Your task to perform on an android device: change the clock display to digital Image 0: 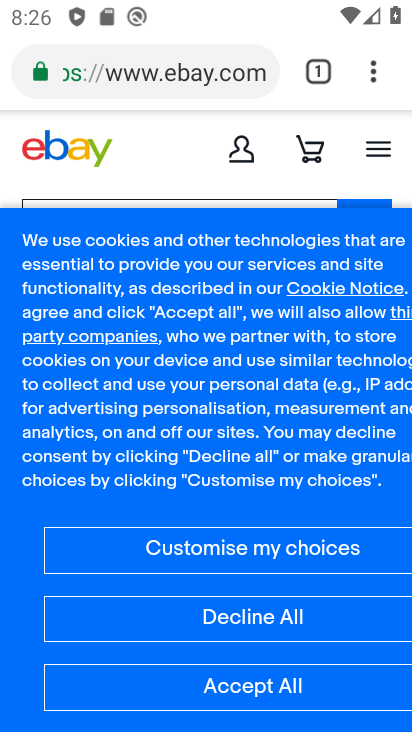
Step 0: press home button
Your task to perform on an android device: change the clock display to digital Image 1: 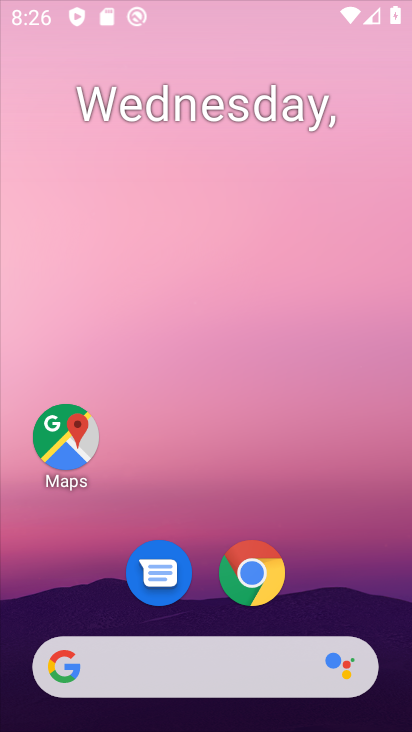
Step 1: drag from (203, 648) to (176, 121)
Your task to perform on an android device: change the clock display to digital Image 2: 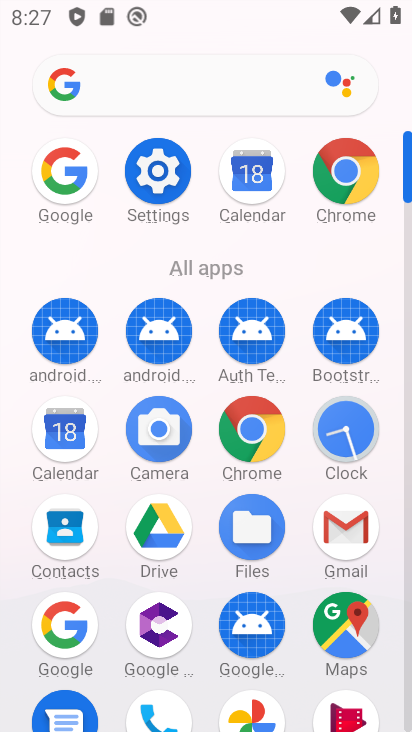
Step 2: click (358, 440)
Your task to perform on an android device: change the clock display to digital Image 3: 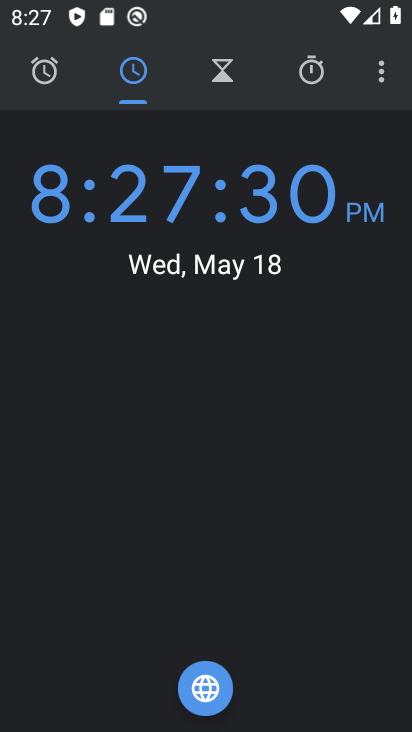
Step 3: click (370, 97)
Your task to perform on an android device: change the clock display to digital Image 4: 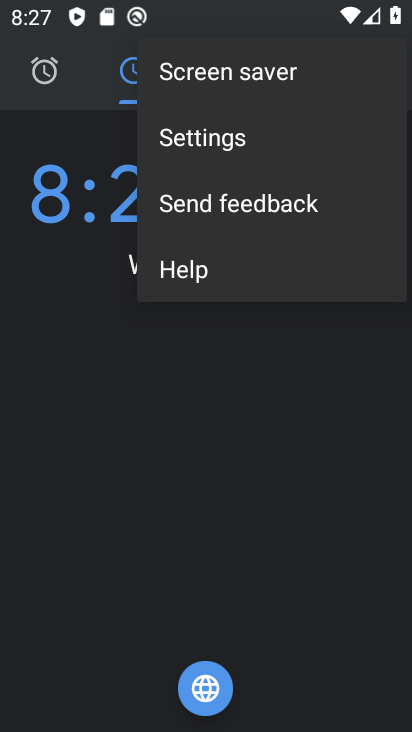
Step 4: click (170, 149)
Your task to perform on an android device: change the clock display to digital Image 5: 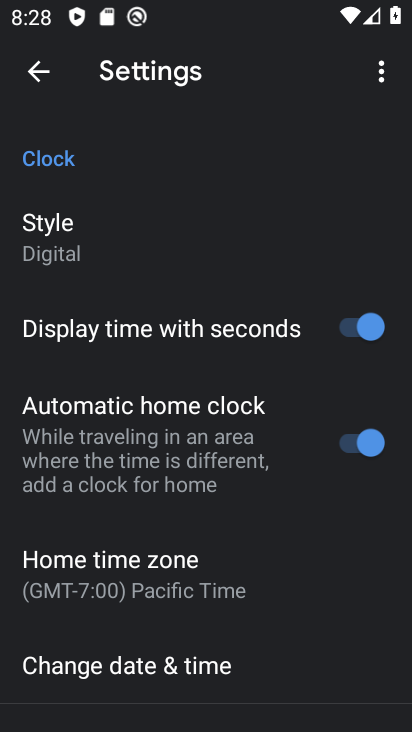
Step 5: click (93, 235)
Your task to perform on an android device: change the clock display to digital Image 6: 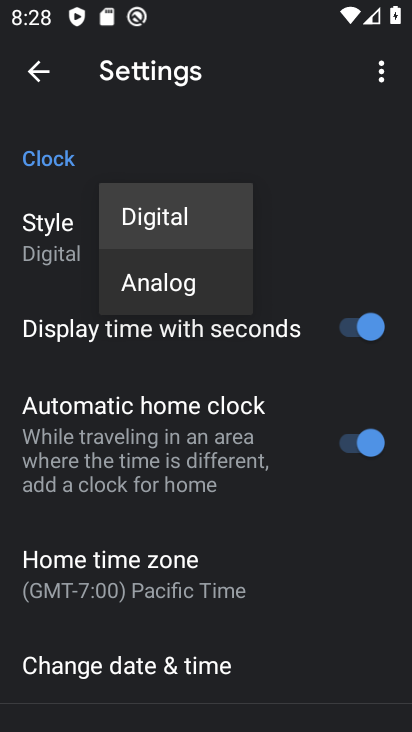
Step 6: task complete